Your task to perform on an android device: change alarm snooze length Image 0: 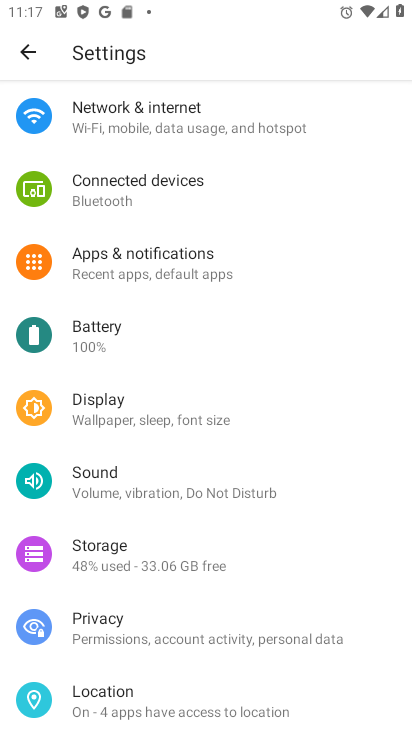
Step 0: press home button
Your task to perform on an android device: change alarm snooze length Image 1: 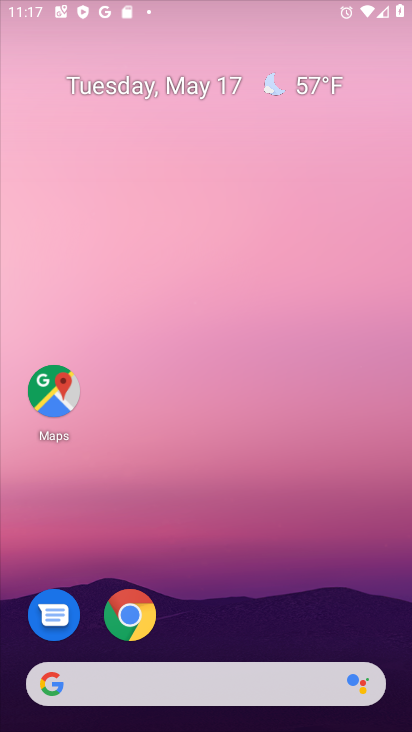
Step 1: drag from (294, 616) to (354, 124)
Your task to perform on an android device: change alarm snooze length Image 2: 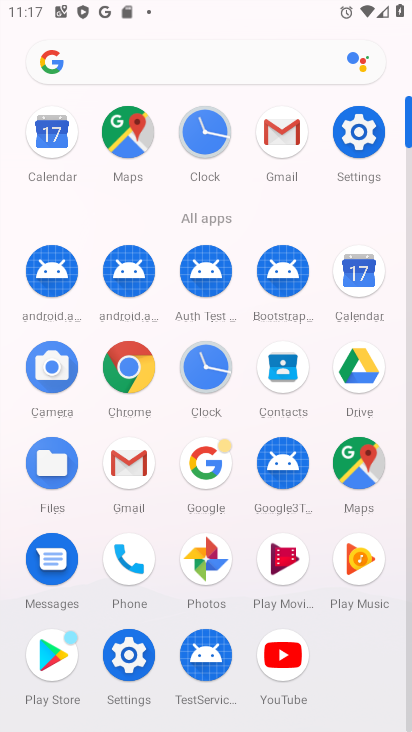
Step 2: click (199, 363)
Your task to perform on an android device: change alarm snooze length Image 3: 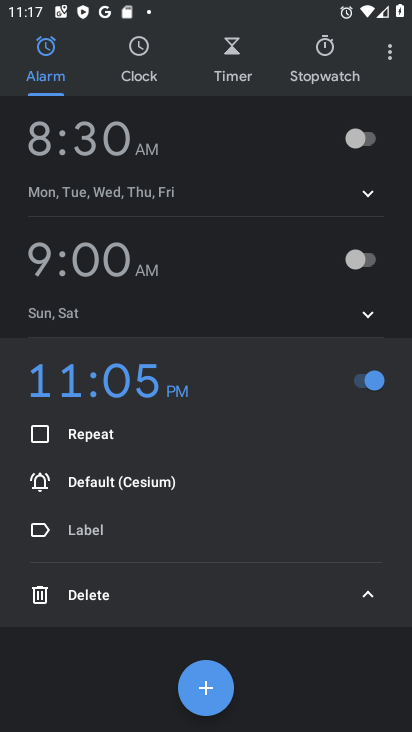
Step 3: click (396, 58)
Your task to perform on an android device: change alarm snooze length Image 4: 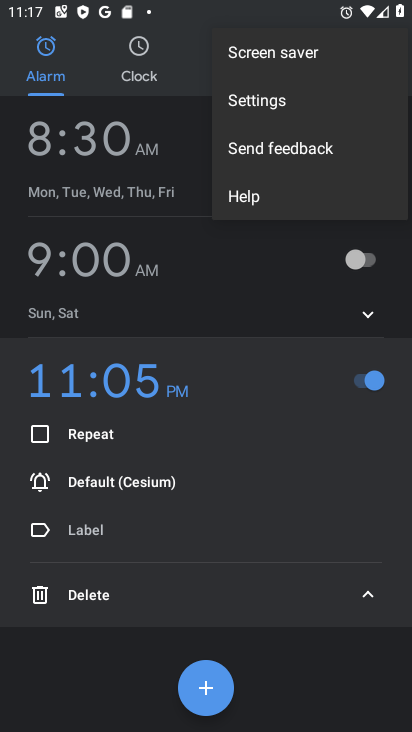
Step 4: click (276, 108)
Your task to perform on an android device: change alarm snooze length Image 5: 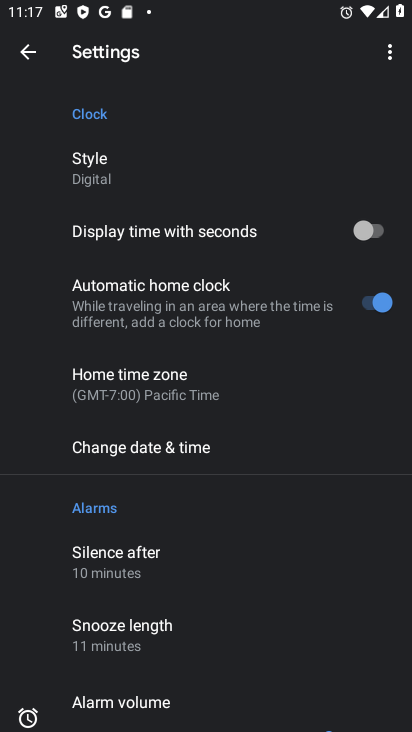
Step 5: click (158, 623)
Your task to perform on an android device: change alarm snooze length Image 6: 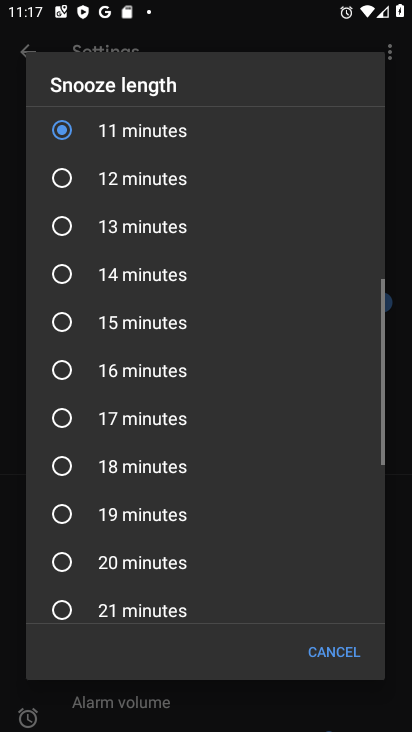
Step 6: click (178, 180)
Your task to perform on an android device: change alarm snooze length Image 7: 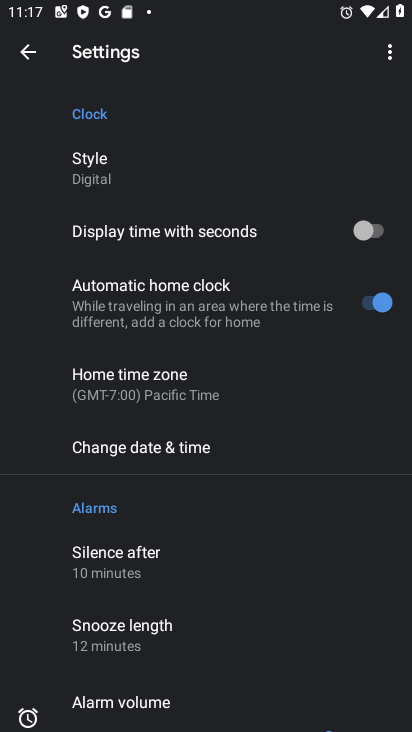
Step 7: task complete